Your task to perform on an android device: visit the assistant section in the google photos Image 0: 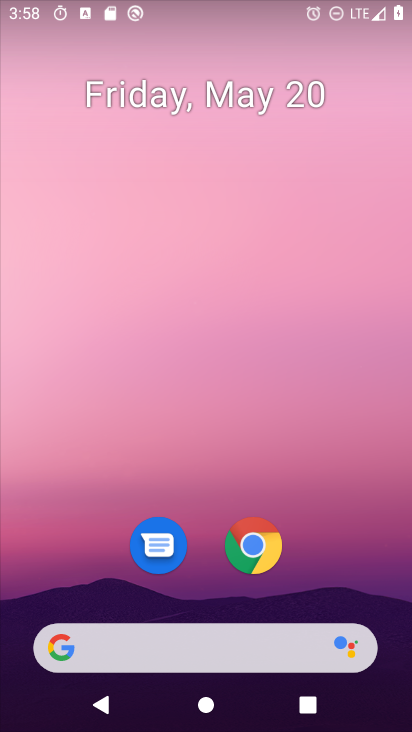
Step 0: drag from (300, 597) to (350, 51)
Your task to perform on an android device: visit the assistant section in the google photos Image 1: 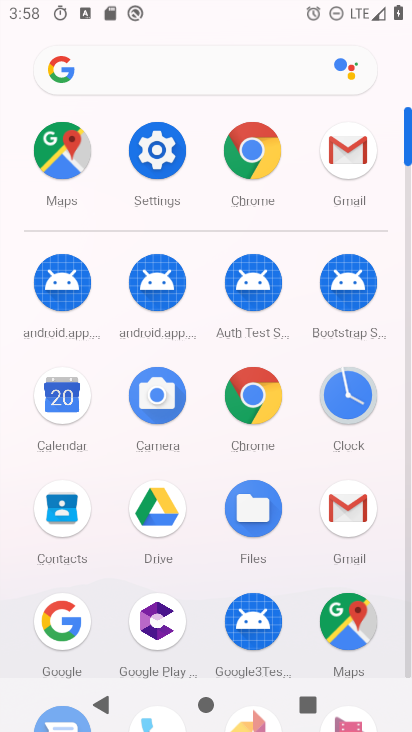
Step 1: drag from (204, 626) to (199, 257)
Your task to perform on an android device: visit the assistant section in the google photos Image 2: 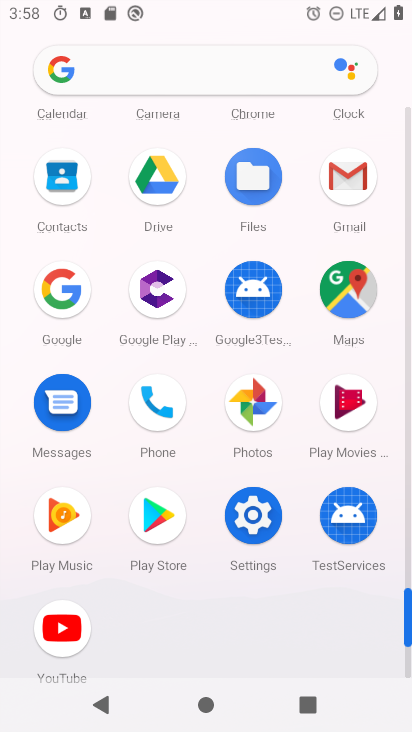
Step 2: click (260, 414)
Your task to perform on an android device: visit the assistant section in the google photos Image 3: 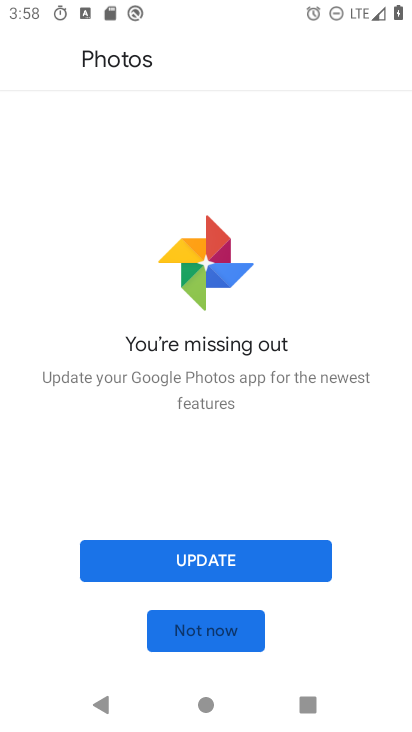
Step 3: click (197, 568)
Your task to perform on an android device: visit the assistant section in the google photos Image 4: 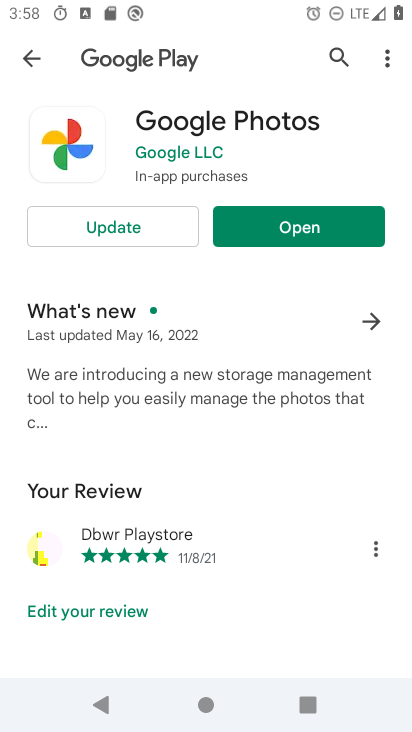
Step 4: click (217, 236)
Your task to perform on an android device: visit the assistant section in the google photos Image 5: 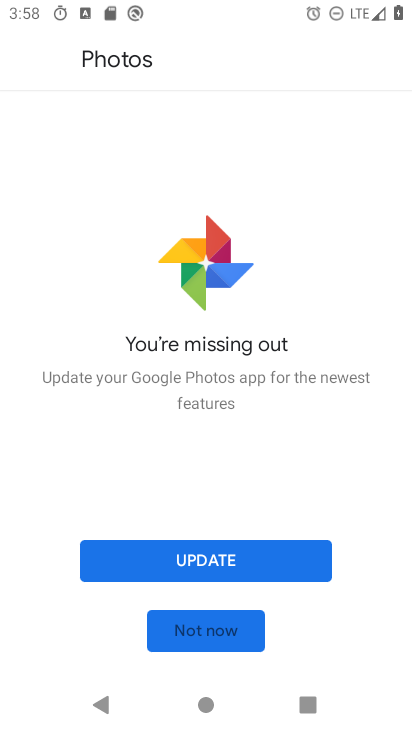
Step 5: click (251, 552)
Your task to perform on an android device: visit the assistant section in the google photos Image 6: 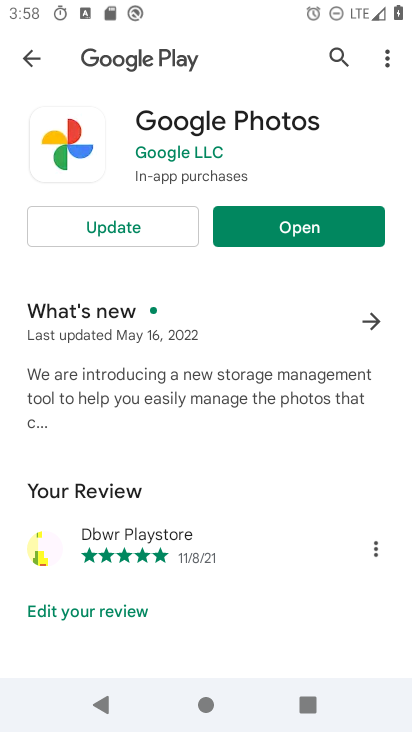
Step 6: click (142, 226)
Your task to perform on an android device: visit the assistant section in the google photos Image 7: 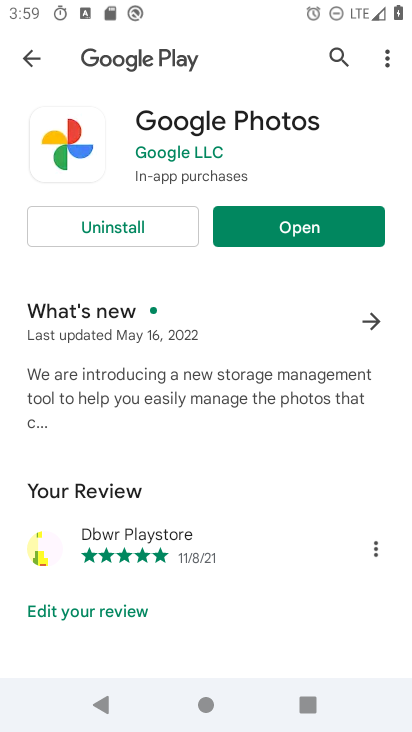
Step 7: click (292, 235)
Your task to perform on an android device: visit the assistant section in the google photos Image 8: 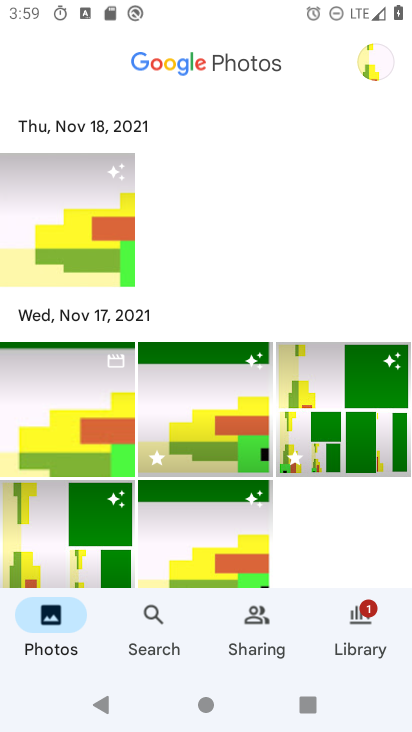
Step 8: click (368, 614)
Your task to perform on an android device: visit the assistant section in the google photos Image 9: 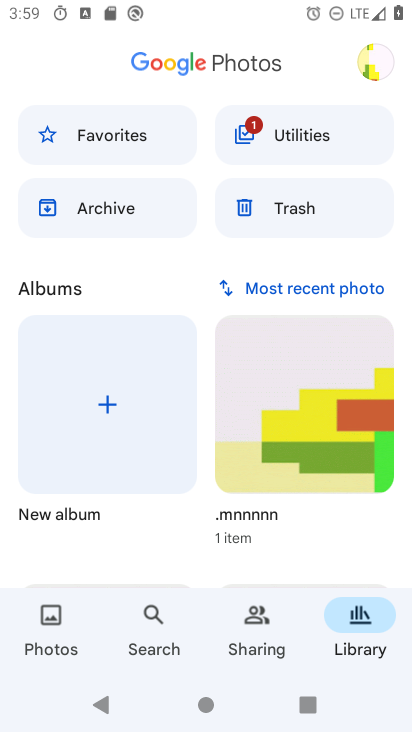
Step 9: task complete